Your task to perform on an android device: uninstall "The Home Depot" Image 0: 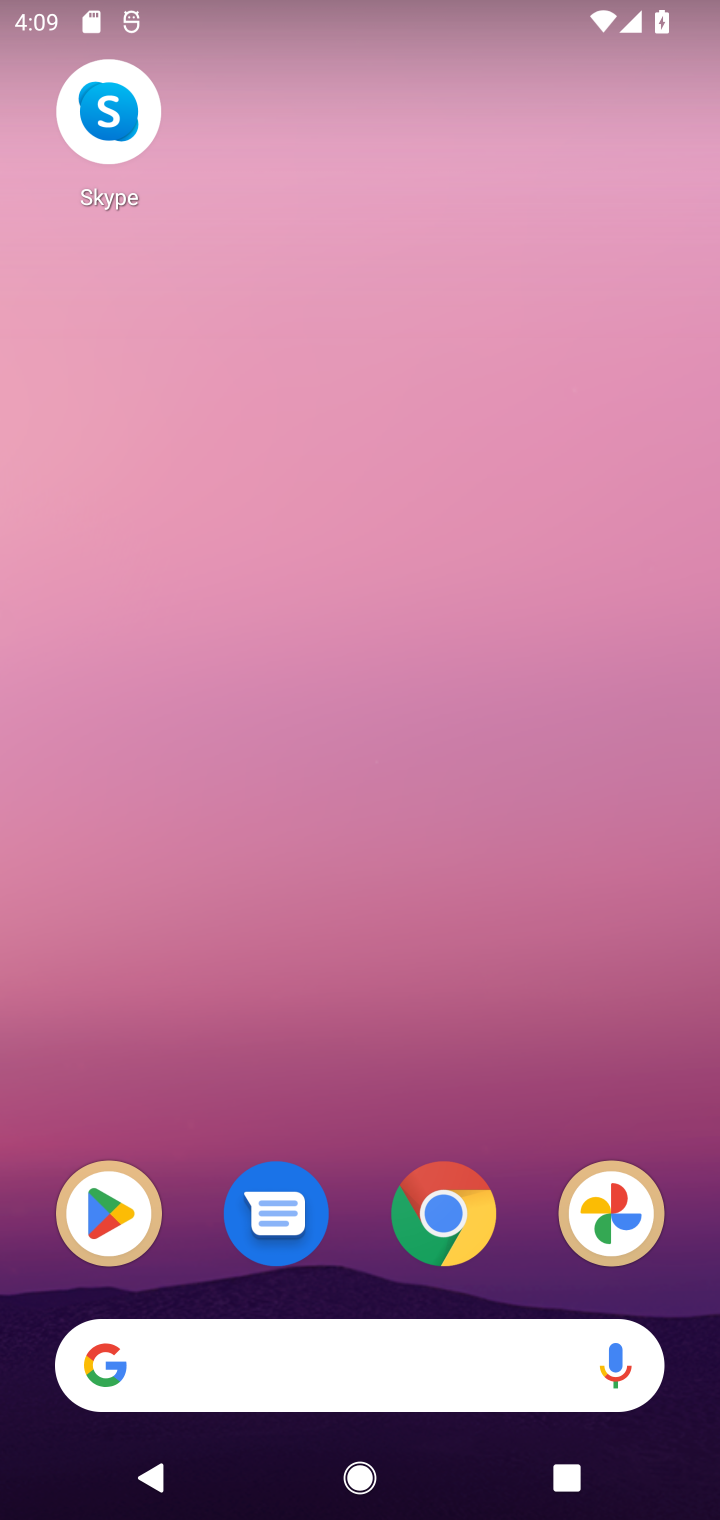
Step 0: drag from (371, 1247) to (365, 174)
Your task to perform on an android device: uninstall "The Home Depot" Image 1: 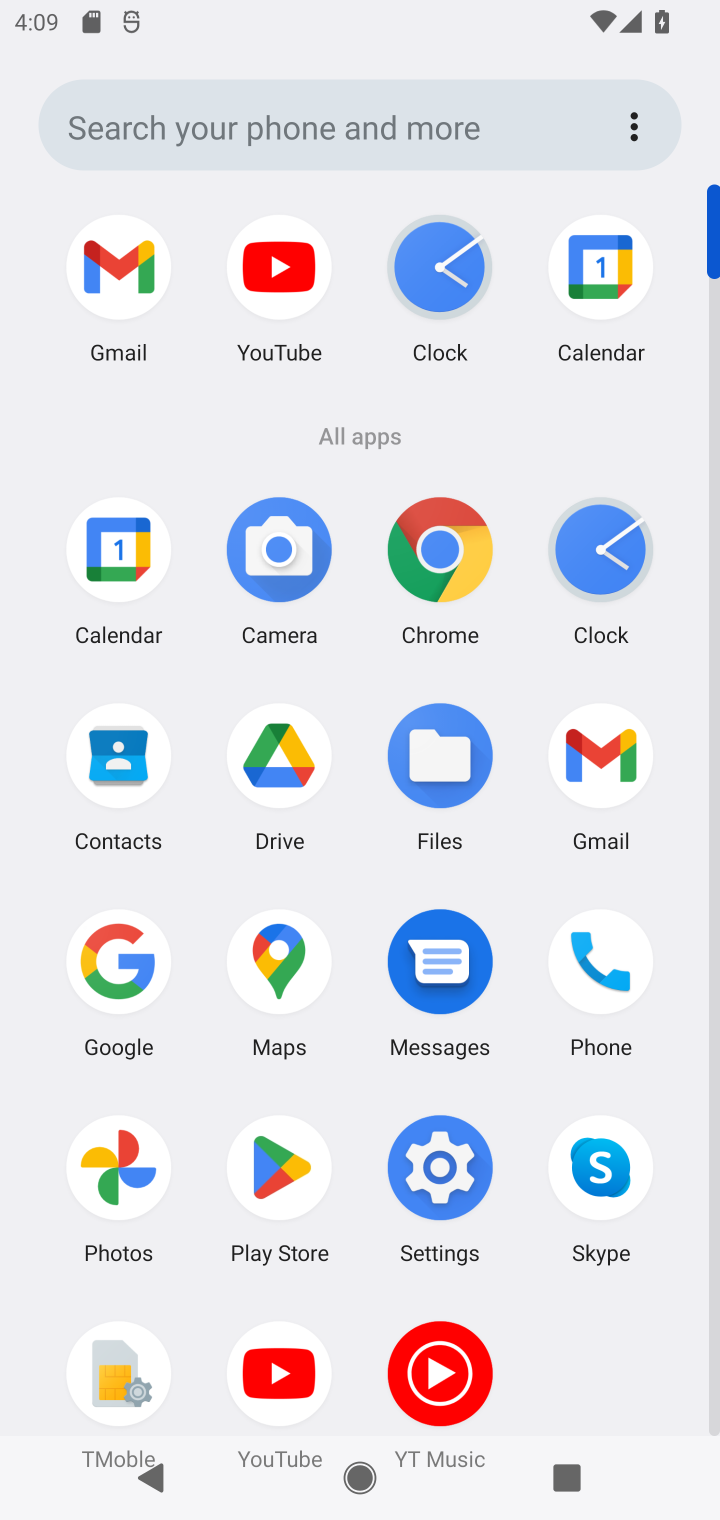
Step 1: click (296, 1171)
Your task to perform on an android device: uninstall "The Home Depot" Image 2: 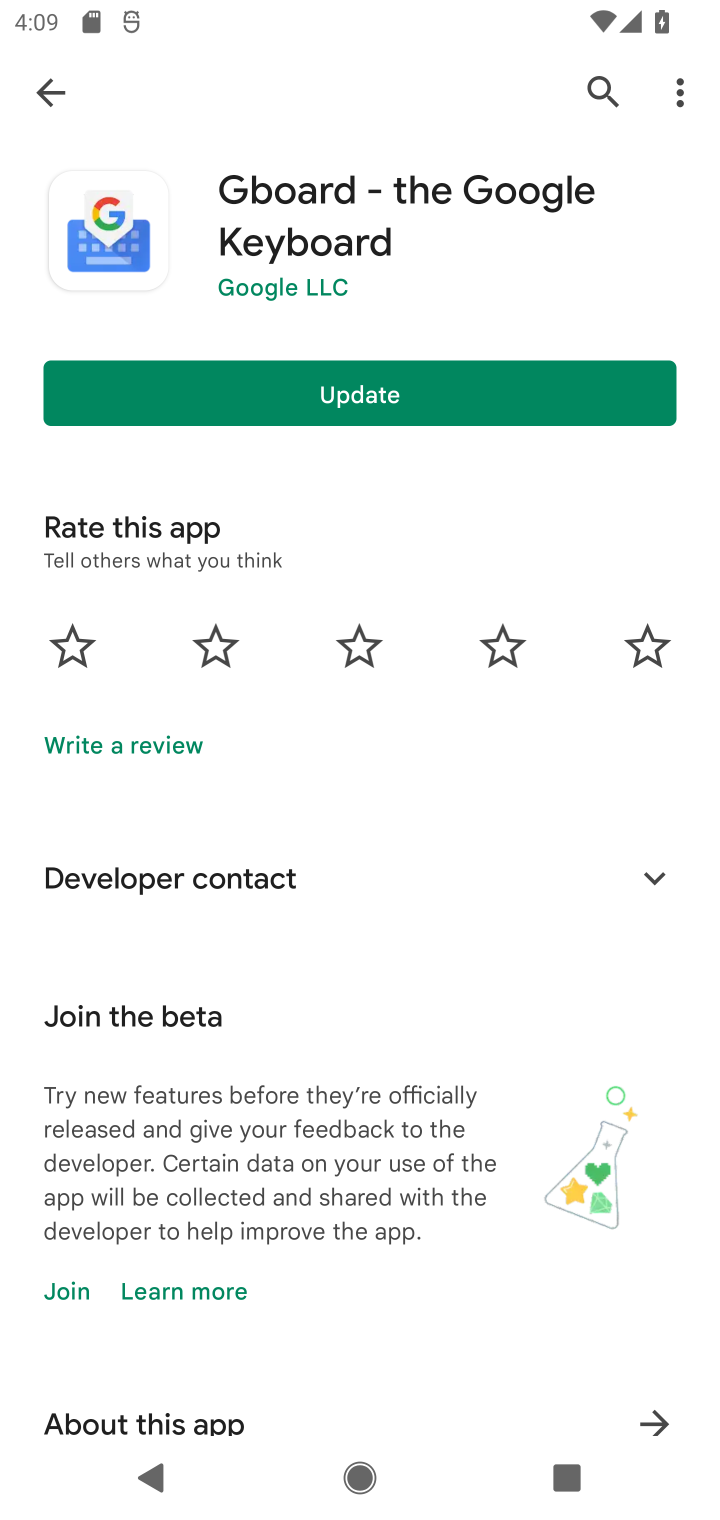
Step 2: click (603, 76)
Your task to perform on an android device: uninstall "The Home Depot" Image 3: 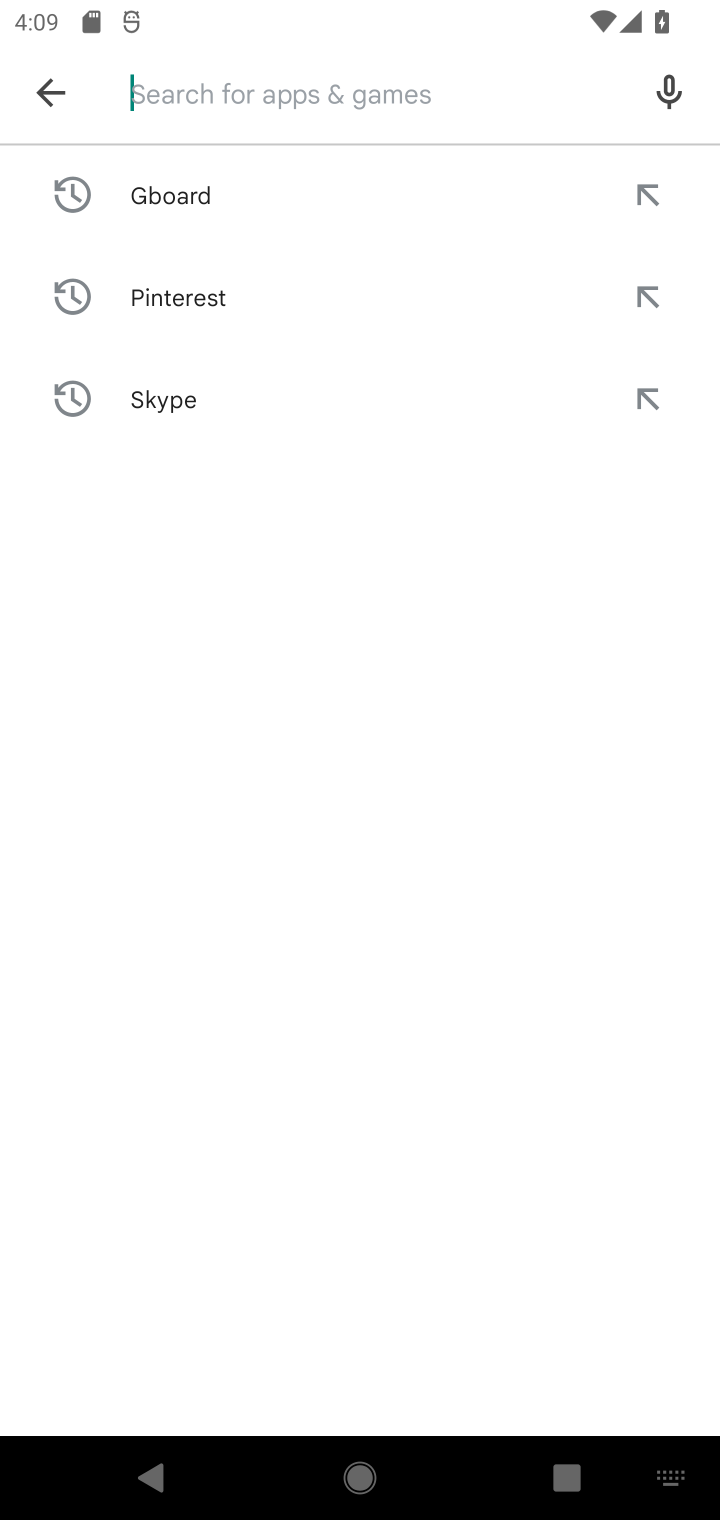
Step 3: type "The Home Depot"
Your task to perform on an android device: uninstall "The Home Depot" Image 4: 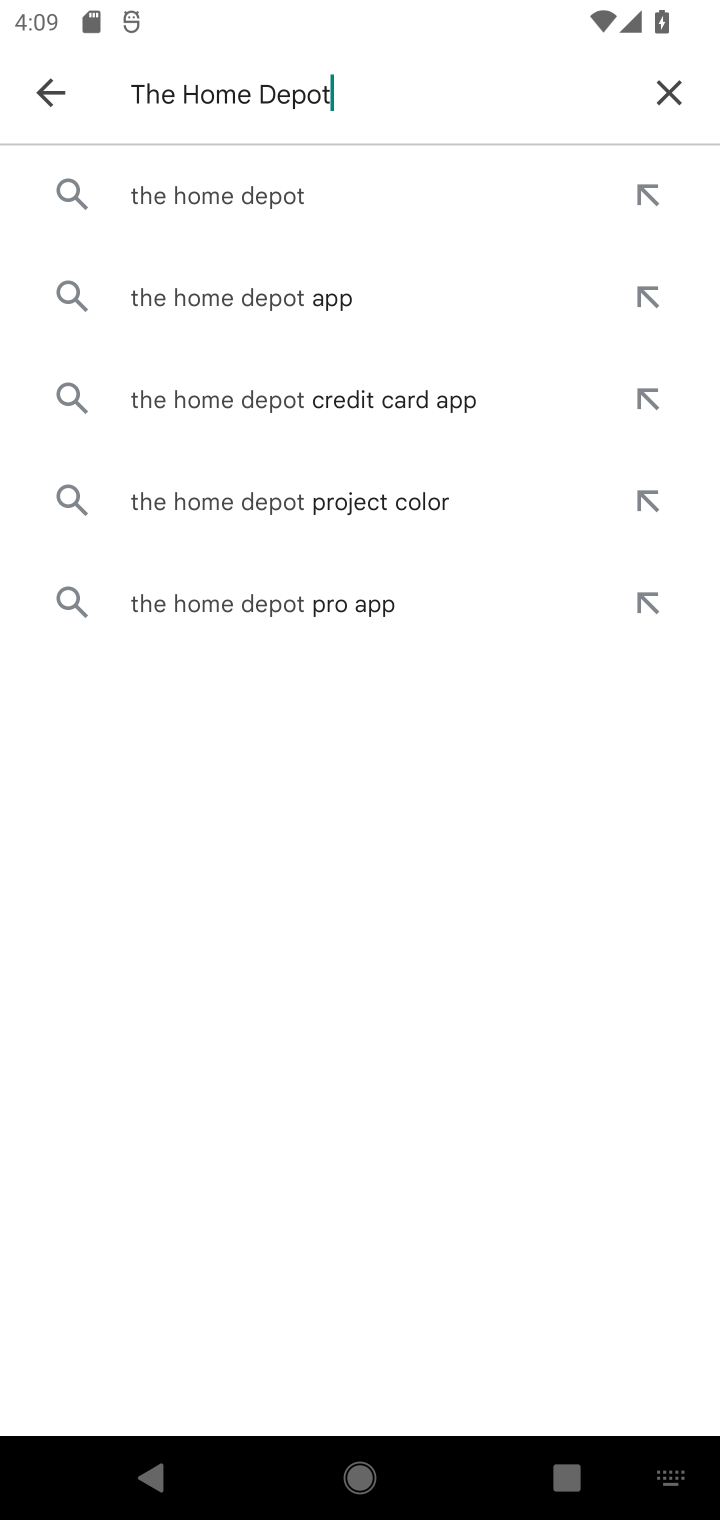
Step 4: press enter
Your task to perform on an android device: uninstall "The Home Depot" Image 5: 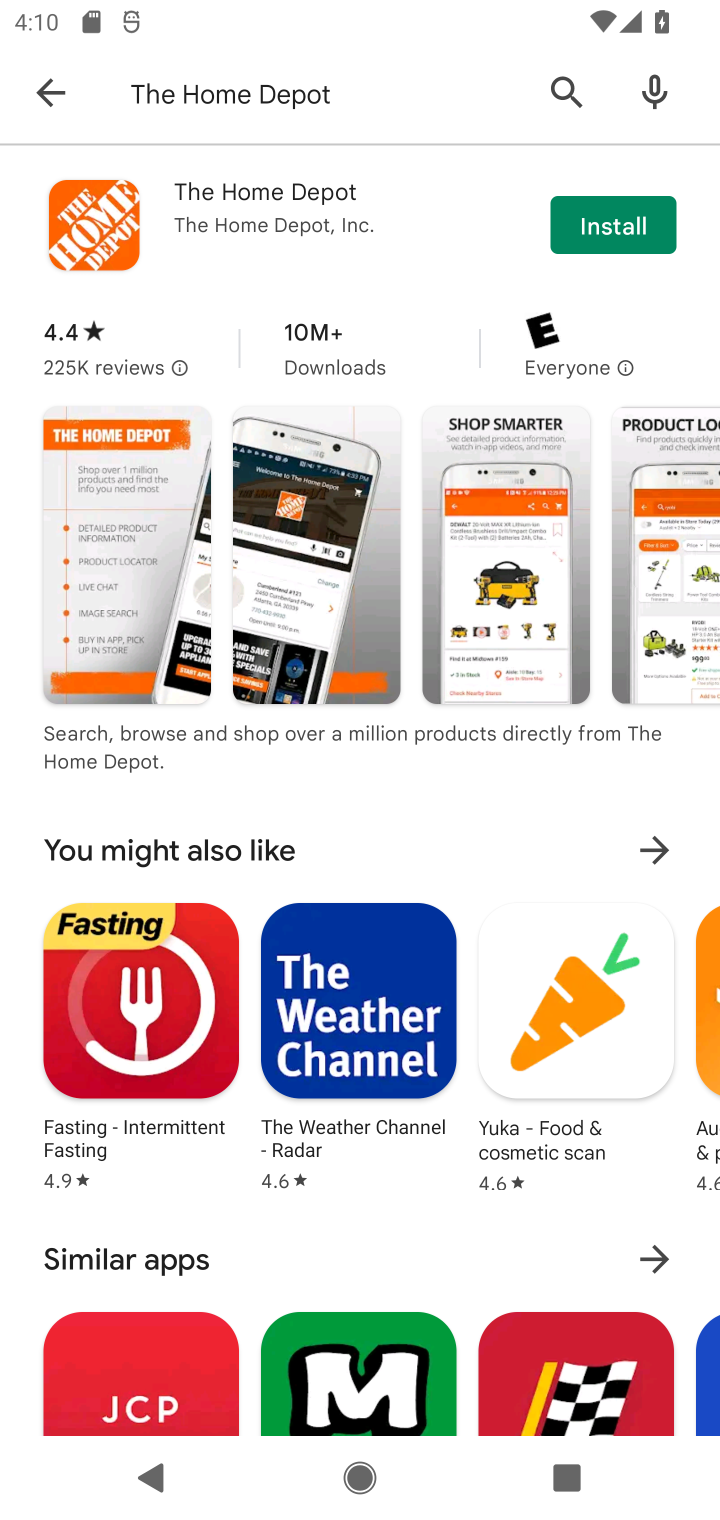
Step 5: task complete